Your task to perform on an android device: open app "Messenger Lite" (install if not already installed) Image 0: 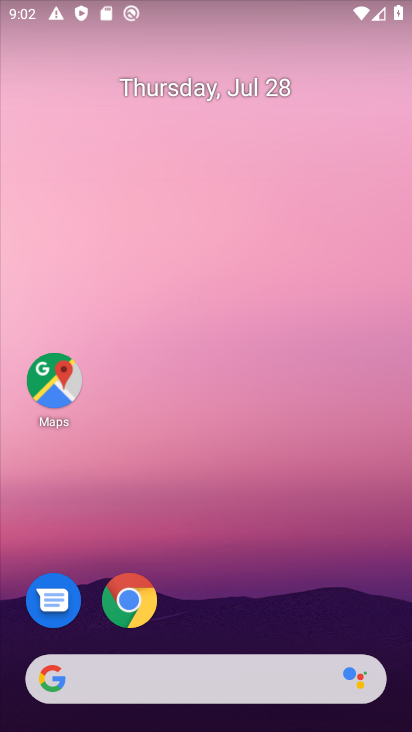
Step 0: drag from (250, 631) to (234, 3)
Your task to perform on an android device: open app "Messenger Lite" (install if not already installed) Image 1: 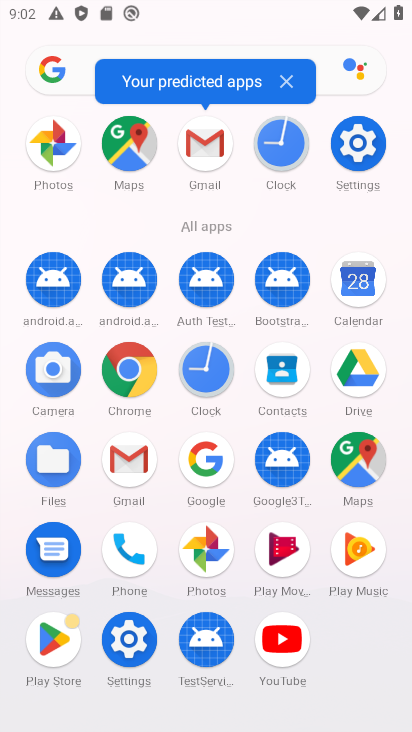
Step 1: click (48, 642)
Your task to perform on an android device: open app "Messenger Lite" (install if not already installed) Image 2: 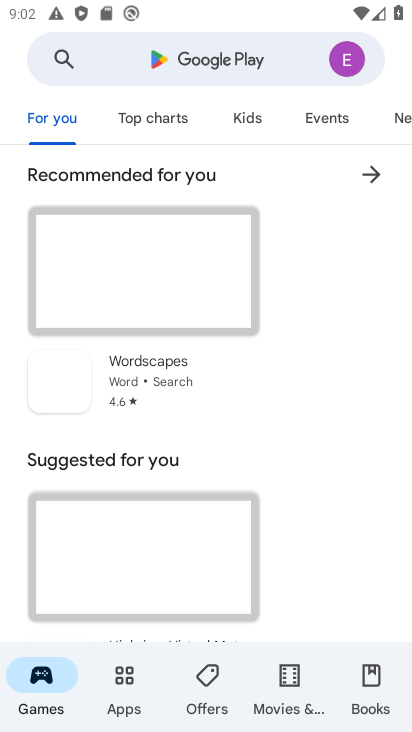
Step 2: click (201, 67)
Your task to perform on an android device: open app "Messenger Lite" (install if not already installed) Image 3: 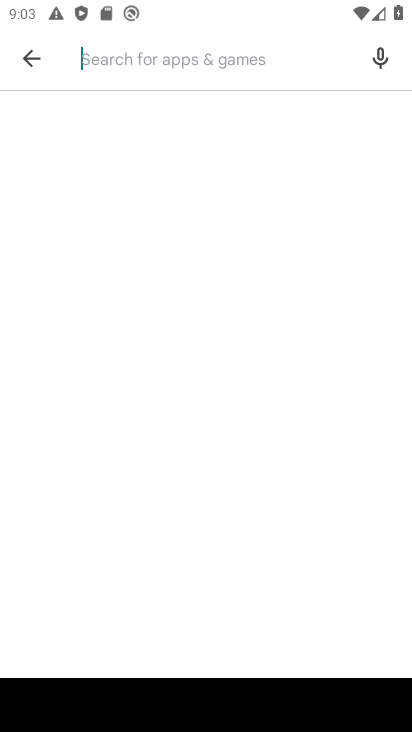
Step 3: type "Messenger Lite"
Your task to perform on an android device: open app "Messenger Lite" (install if not already installed) Image 4: 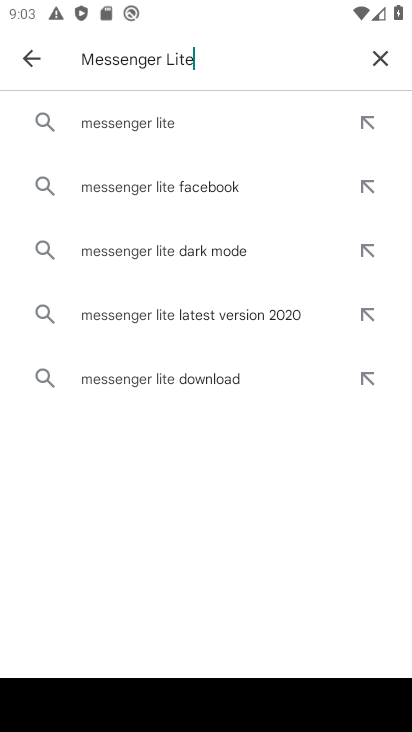
Step 4: click (129, 124)
Your task to perform on an android device: open app "Messenger Lite" (install if not already installed) Image 5: 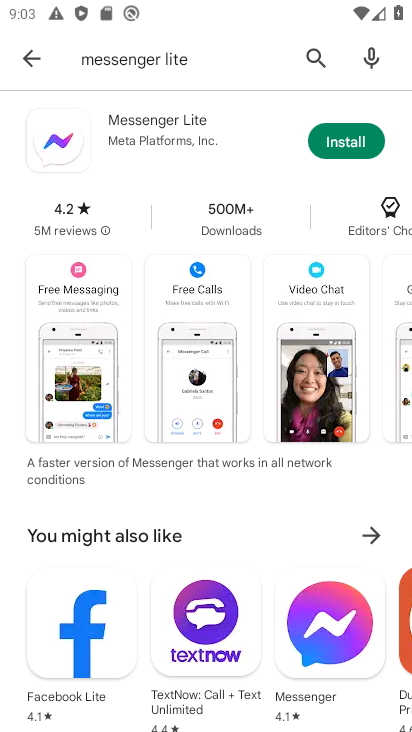
Step 5: click (359, 141)
Your task to perform on an android device: open app "Messenger Lite" (install if not already installed) Image 6: 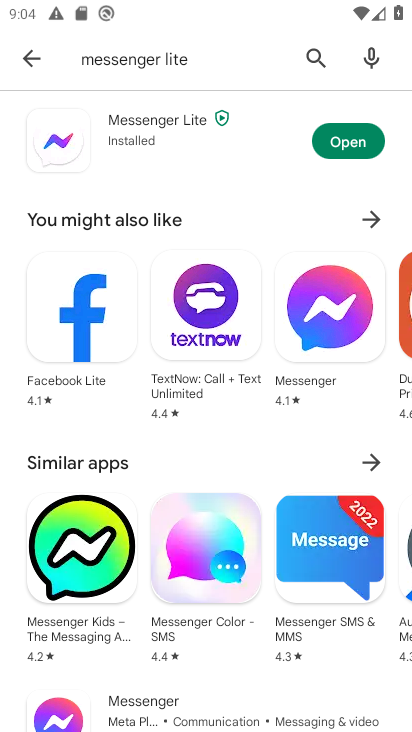
Step 6: click (338, 148)
Your task to perform on an android device: open app "Messenger Lite" (install if not already installed) Image 7: 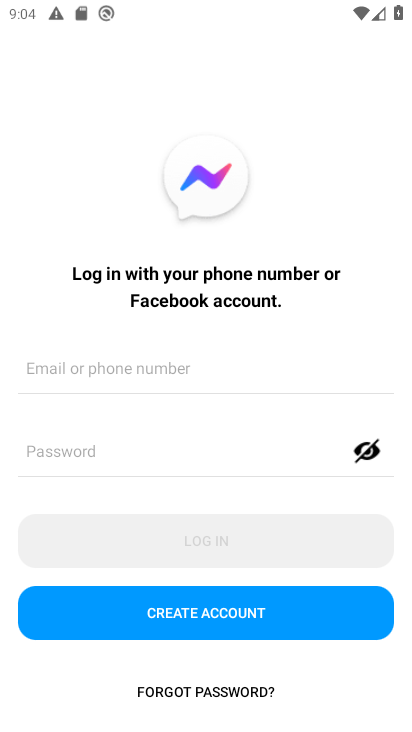
Step 7: task complete